Your task to perform on an android device: Open Amazon Image 0: 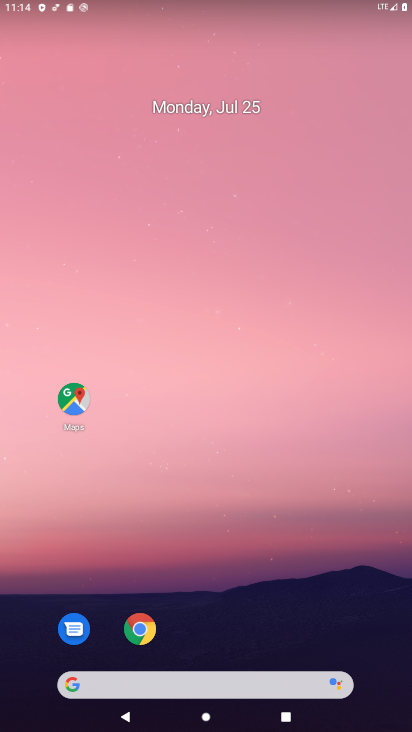
Step 0: click (145, 628)
Your task to perform on an android device: Open Amazon Image 1: 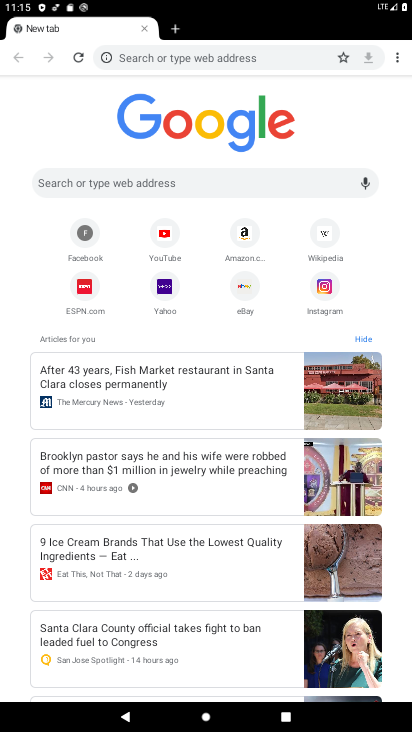
Step 1: click (249, 236)
Your task to perform on an android device: Open Amazon Image 2: 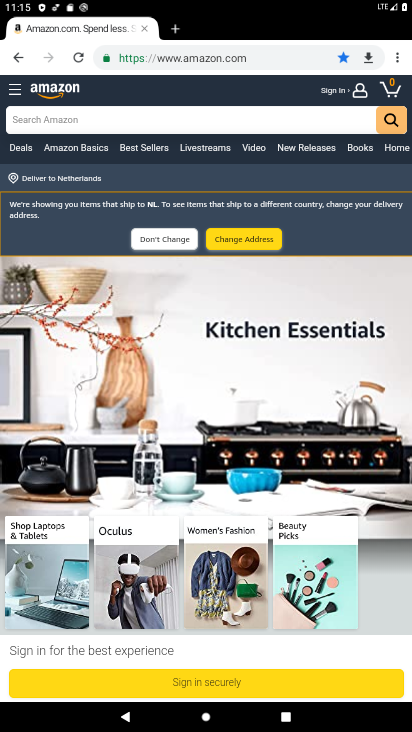
Step 2: task complete